Your task to perform on an android device: Go to settings Image 0: 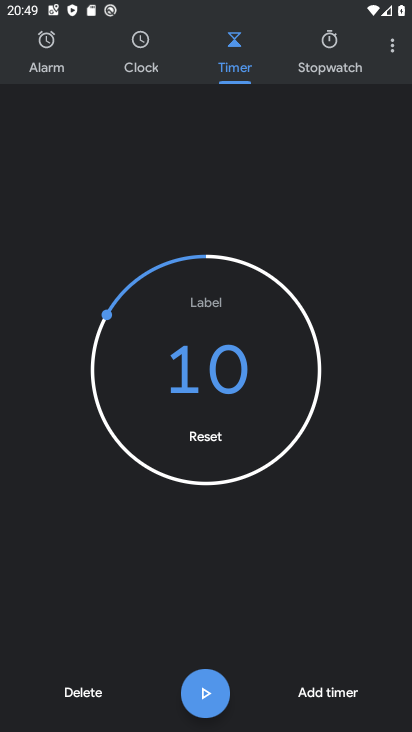
Step 0: press home button
Your task to perform on an android device: Go to settings Image 1: 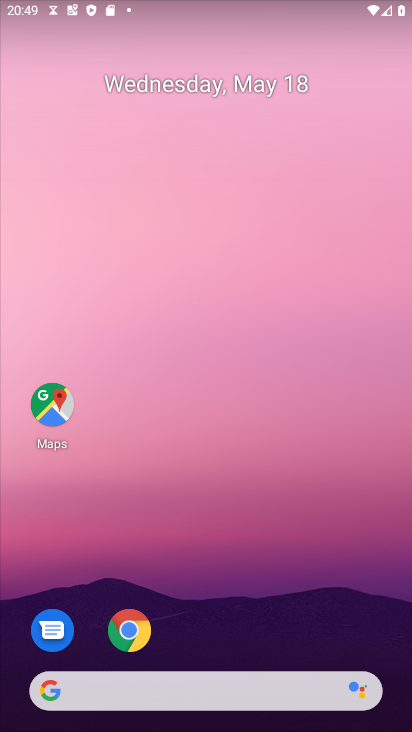
Step 1: drag from (173, 692) to (294, 231)
Your task to perform on an android device: Go to settings Image 2: 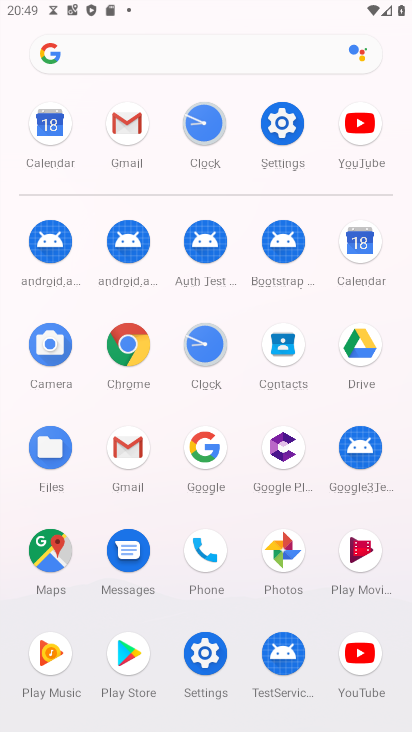
Step 2: click (283, 125)
Your task to perform on an android device: Go to settings Image 3: 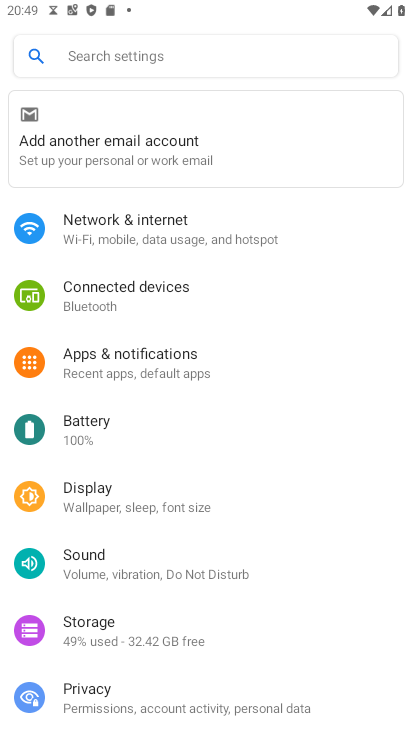
Step 3: task complete